Your task to perform on an android device: Do I have any events this weekend? Image 0: 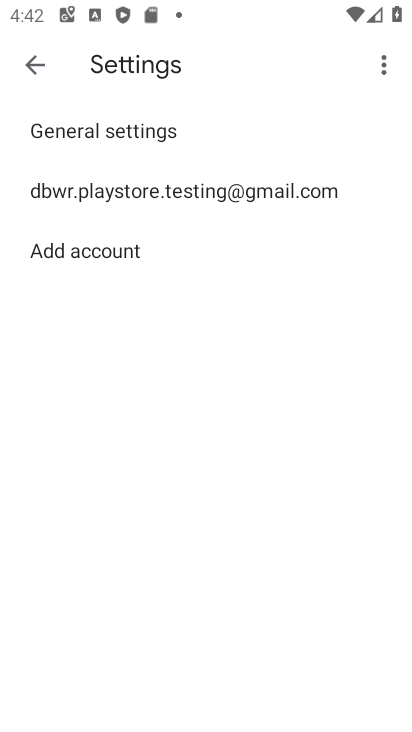
Step 0: press home button
Your task to perform on an android device: Do I have any events this weekend? Image 1: 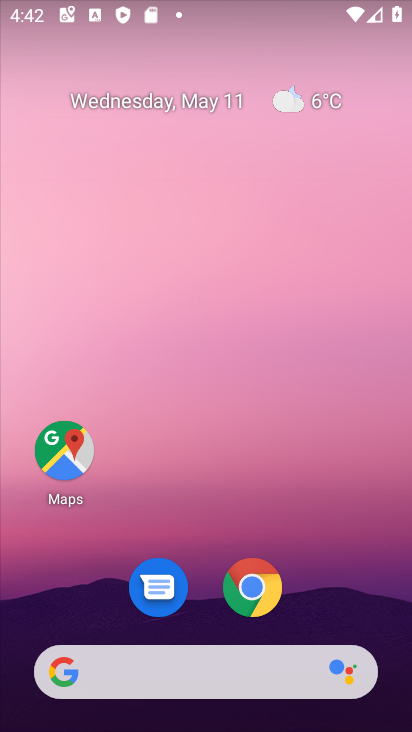
Step 1: drag from (301, 598) to (306, 330)
Your task to perform on an android device: Do I have any events this weekend? Image 2: 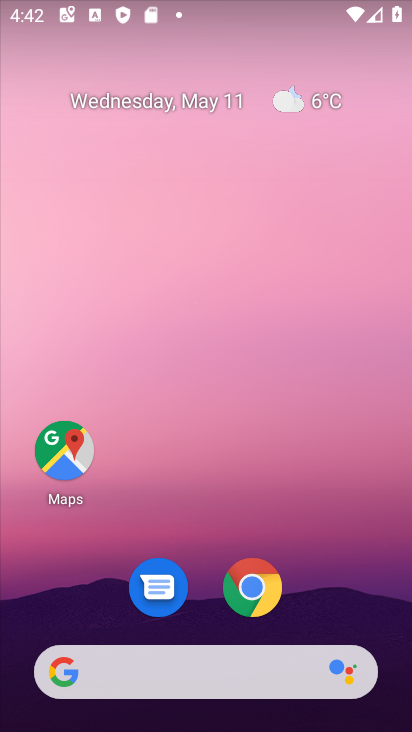
Step 2: drag from (316, 650) to (332, 310)
Your task to perform on an android device: Do I have any events this weekend? Image 3: 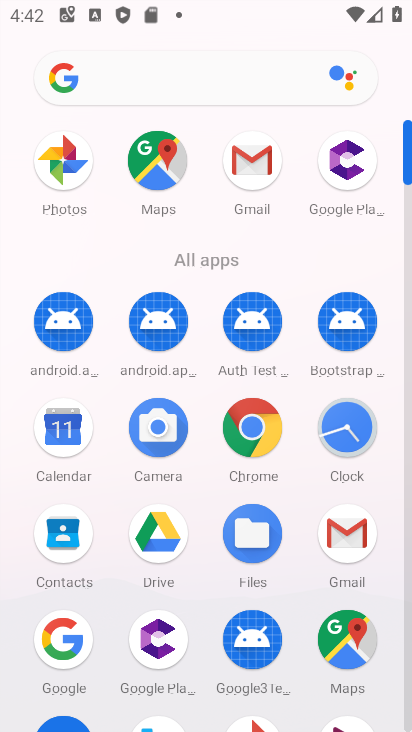
Step 3: click (49, 425)
Your task to perform on an android device: Do I have any events this weekend? Image 4: 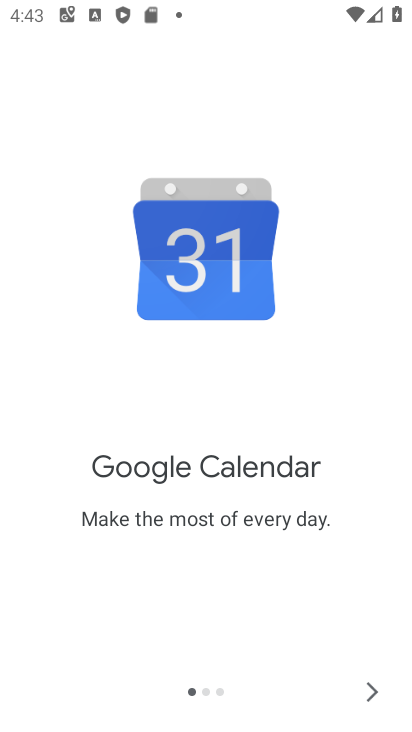
Step 4: click (363, 693)
Your task to perform on an android device: Do I have any events this weekend? Image 5: 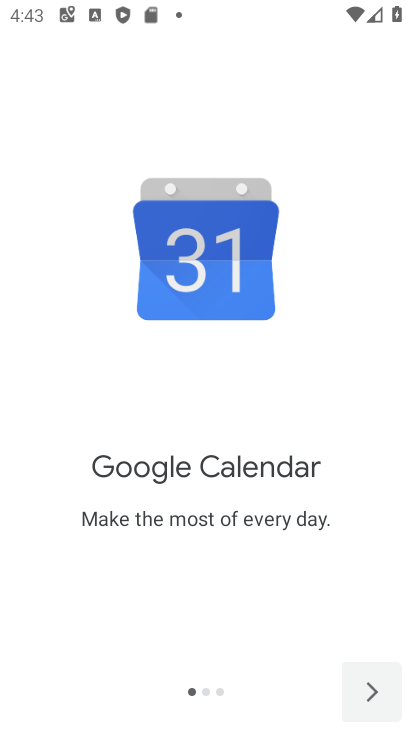
Step 5: click (363, 693)
Your task to perform on an android device: Do I have any events this weekend? Image 6: 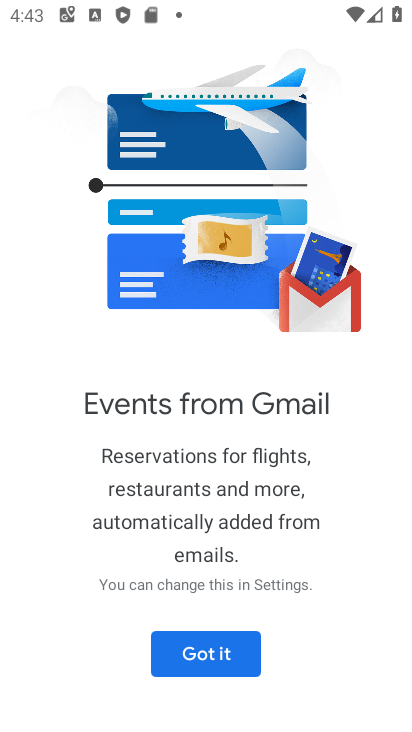
Step 6: click (204, 652)
Your task to perform on an android device: Do I have any events this weekend? Image 7: 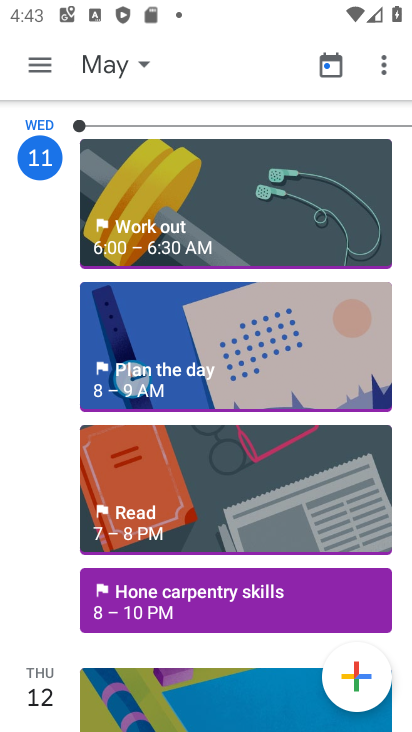
Step 7: click (39, 60)
Your task to perform on an android device: Do I have any events this weekend? Image 8: 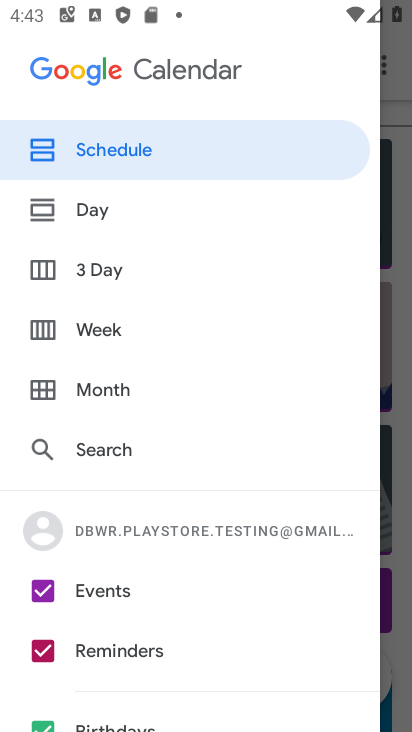
Step 8: click (84, 317)
Your task to perform on an android device: Do I have any events this weekend? Image 9: 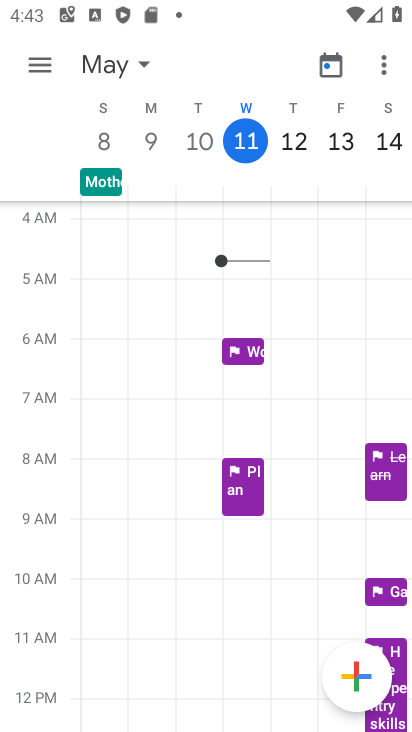
Step 9: task complete